Your task to perform on an android device: set the stopwatch Image 0: 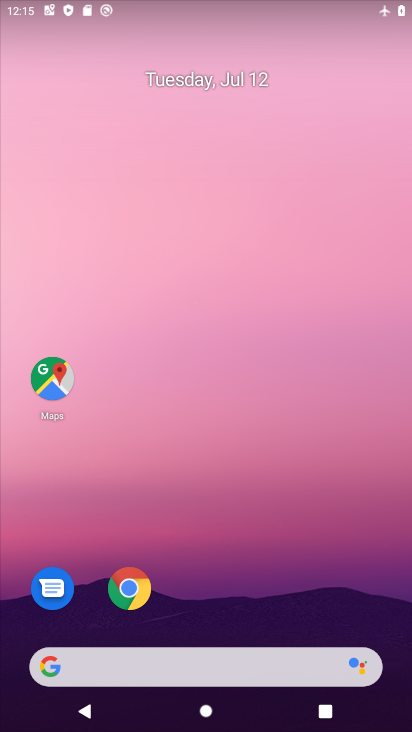
Step 0: drag from (270, 510) to (270, 115)
Your task to perform on an android device: set the stopwatch Image 1: 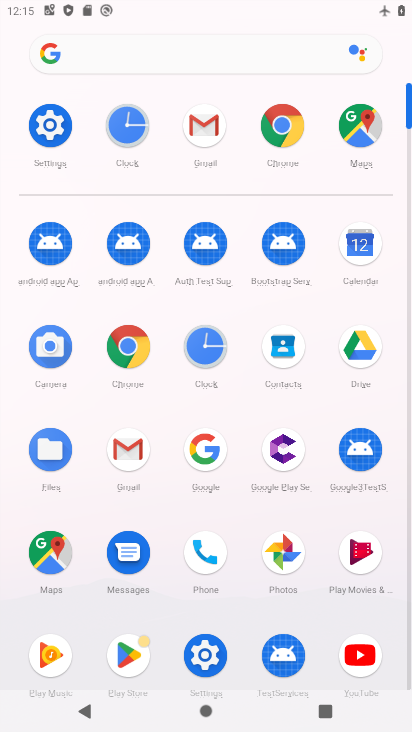
Step 1: click (213, 344)
Your task to perform on an android device: set the stopwatch Image 2: 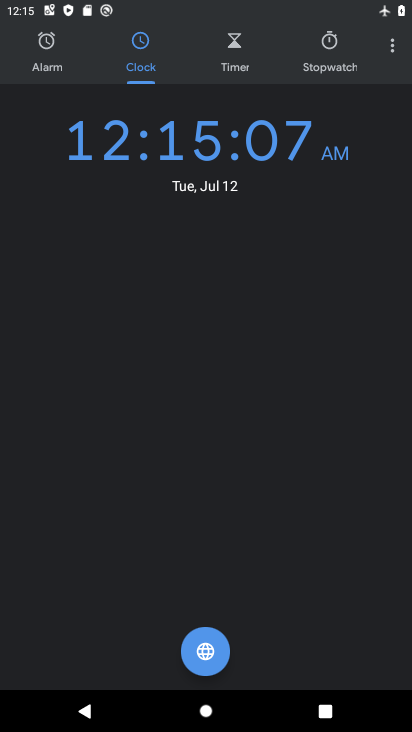
Step 2: click (326, 49)
Your task to perform on an android device: set the stopwatch Image 3: 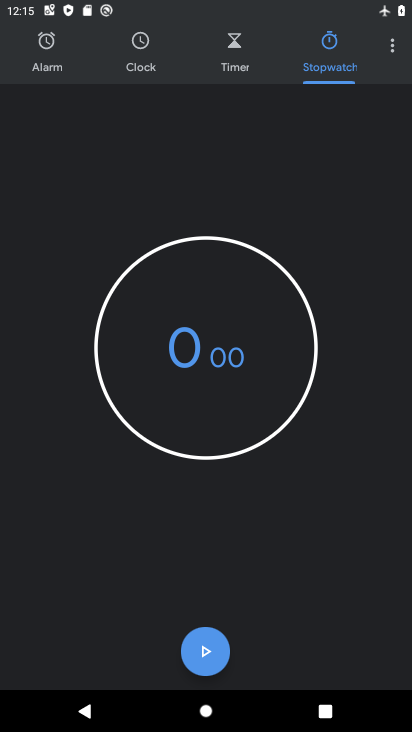
Step 3: click (205, 669)
Your task to perform on an android device: set the stopwatch Image 4: 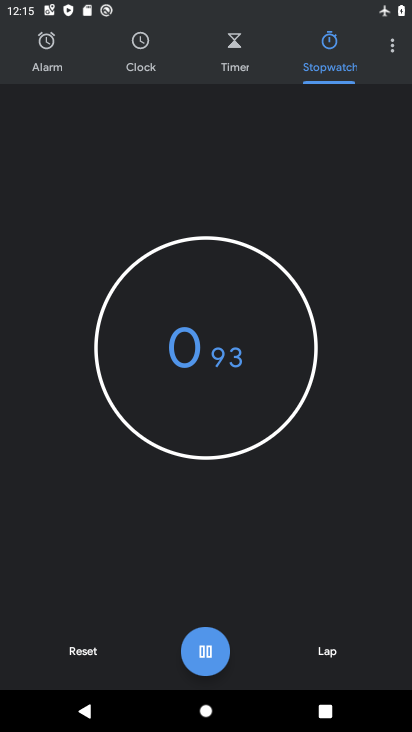
Step 4: click (206, 659)
Your task to perform on an android device: set the stopwatch Image 5: 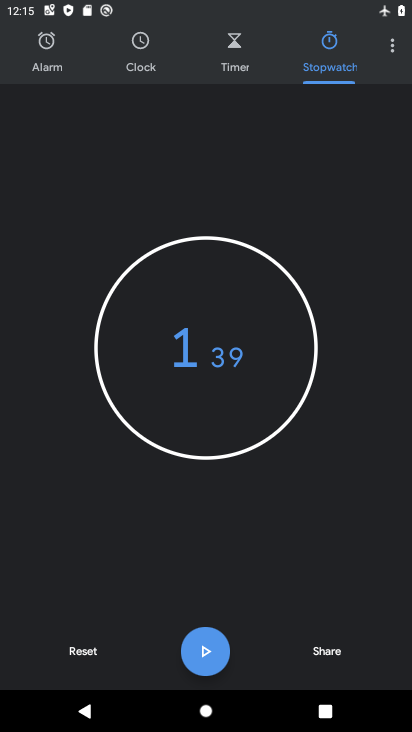
Step 5: task complete